Your task to perform on an android device: toggle improve location accuracy Image 0: 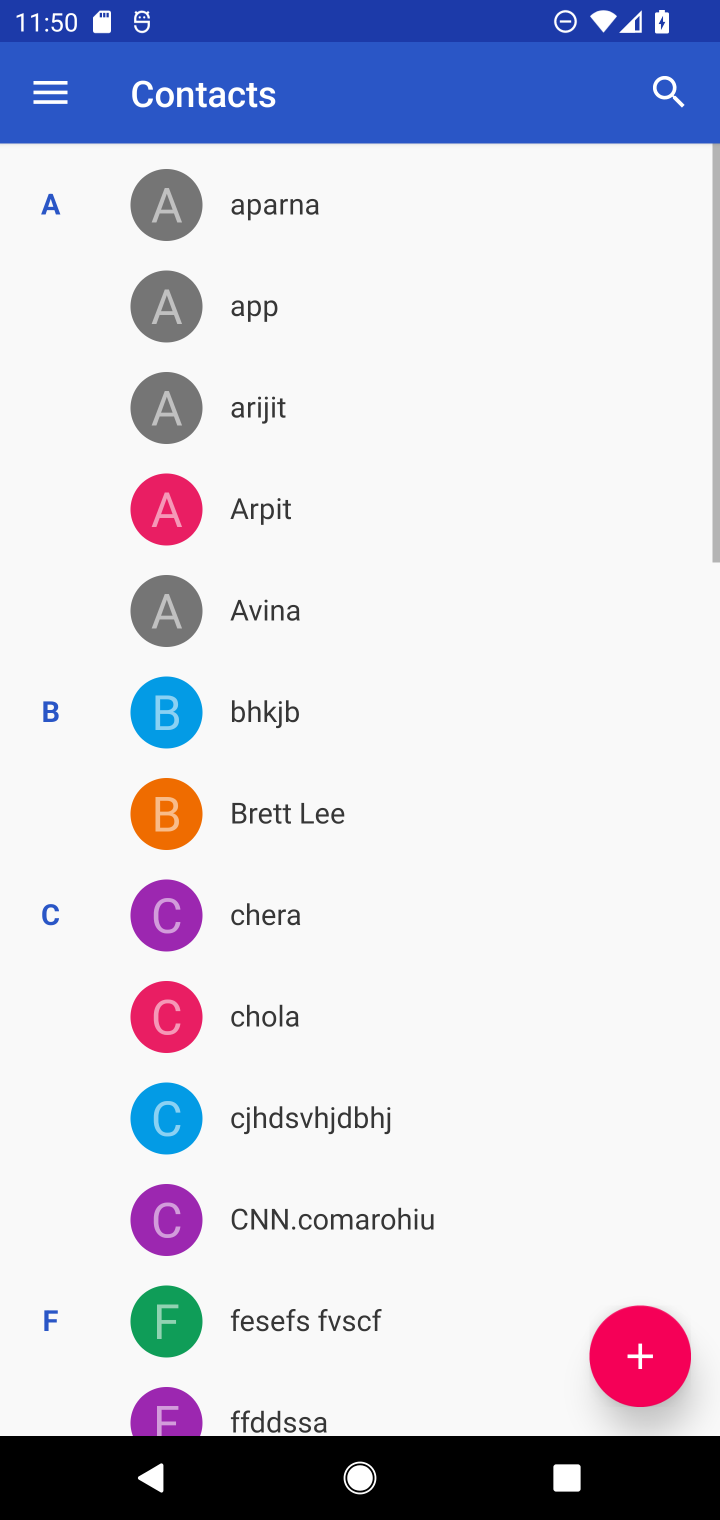
Step 0: press home button
Your task to perform on an android device: toggle improve location accuracy Image 1: 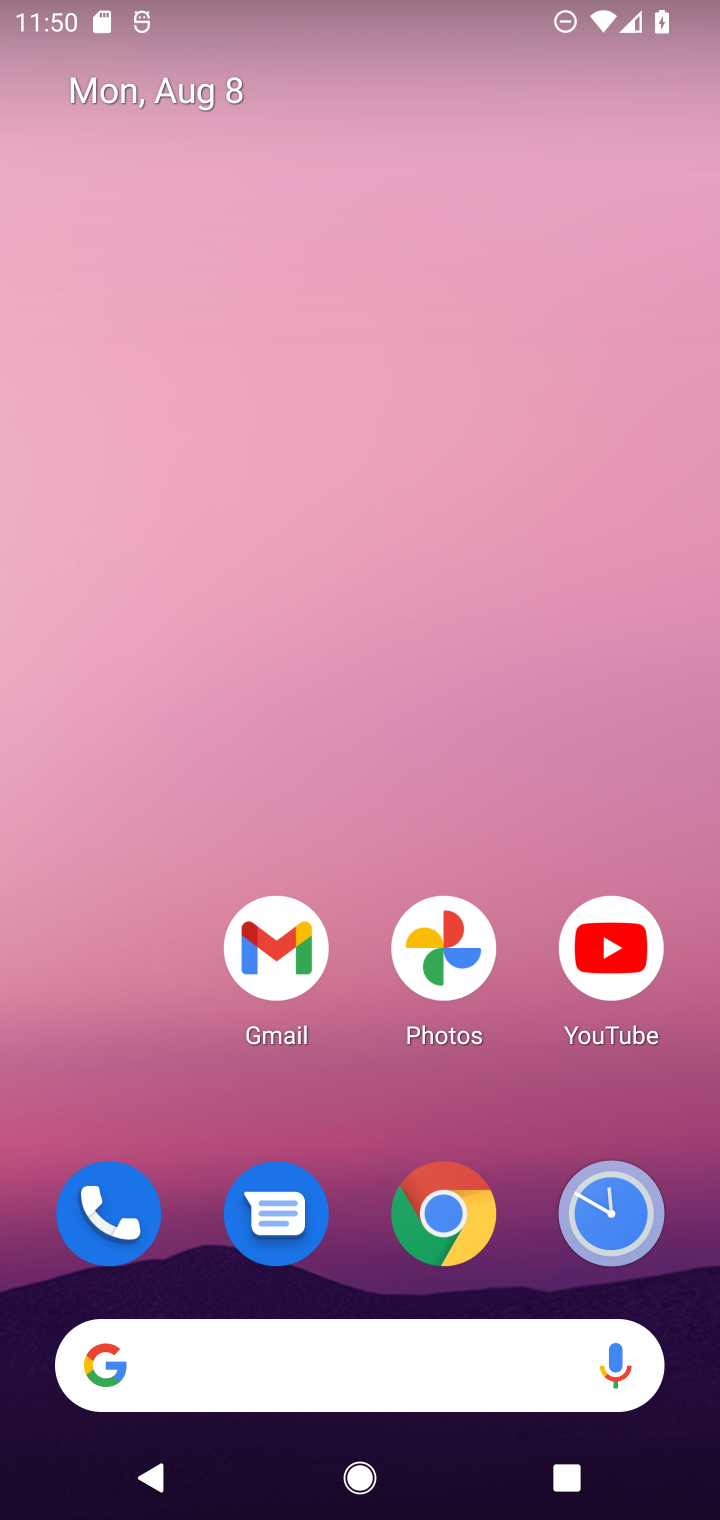
Step 1: drag from (355, 1139) to (421, 206)
Your task to perform on an android device: toggle improve location accuracy Image 2: 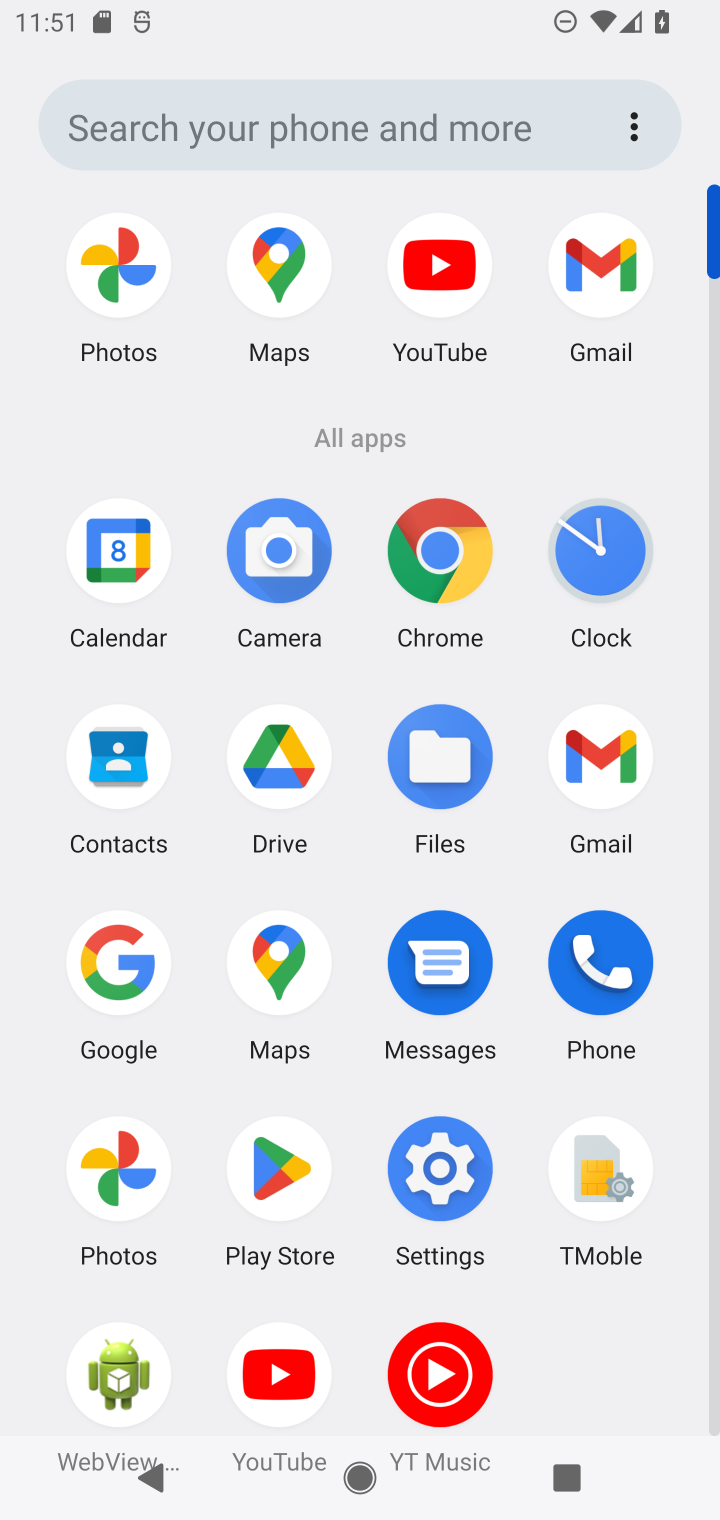
Step 2: click (427, 1151)
Your task to perform on an android device: toggle improve location accuracy Image 3: 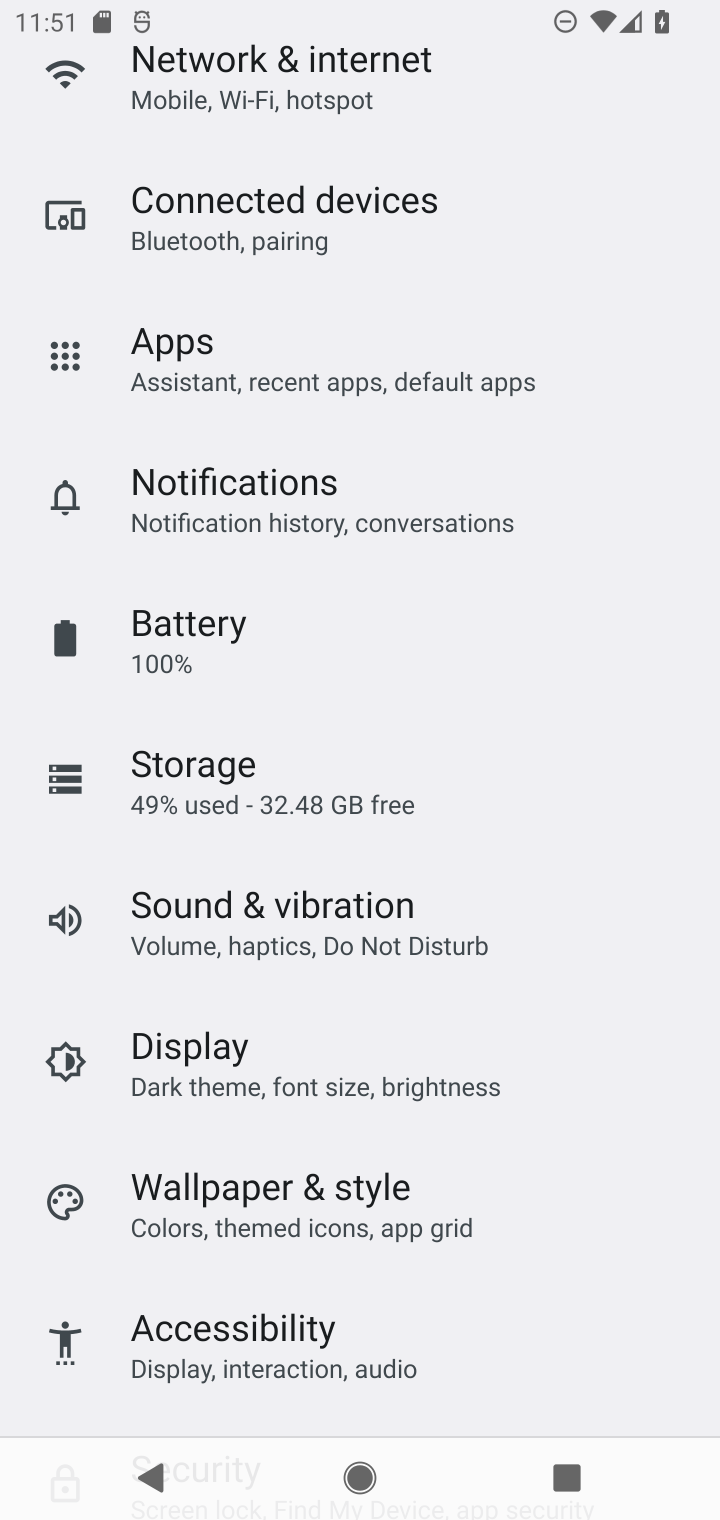
Step 3: drag from (378, 1310) to (453, 518)
Your task to perform on an android device: toggle improve location accuracy Image 4: 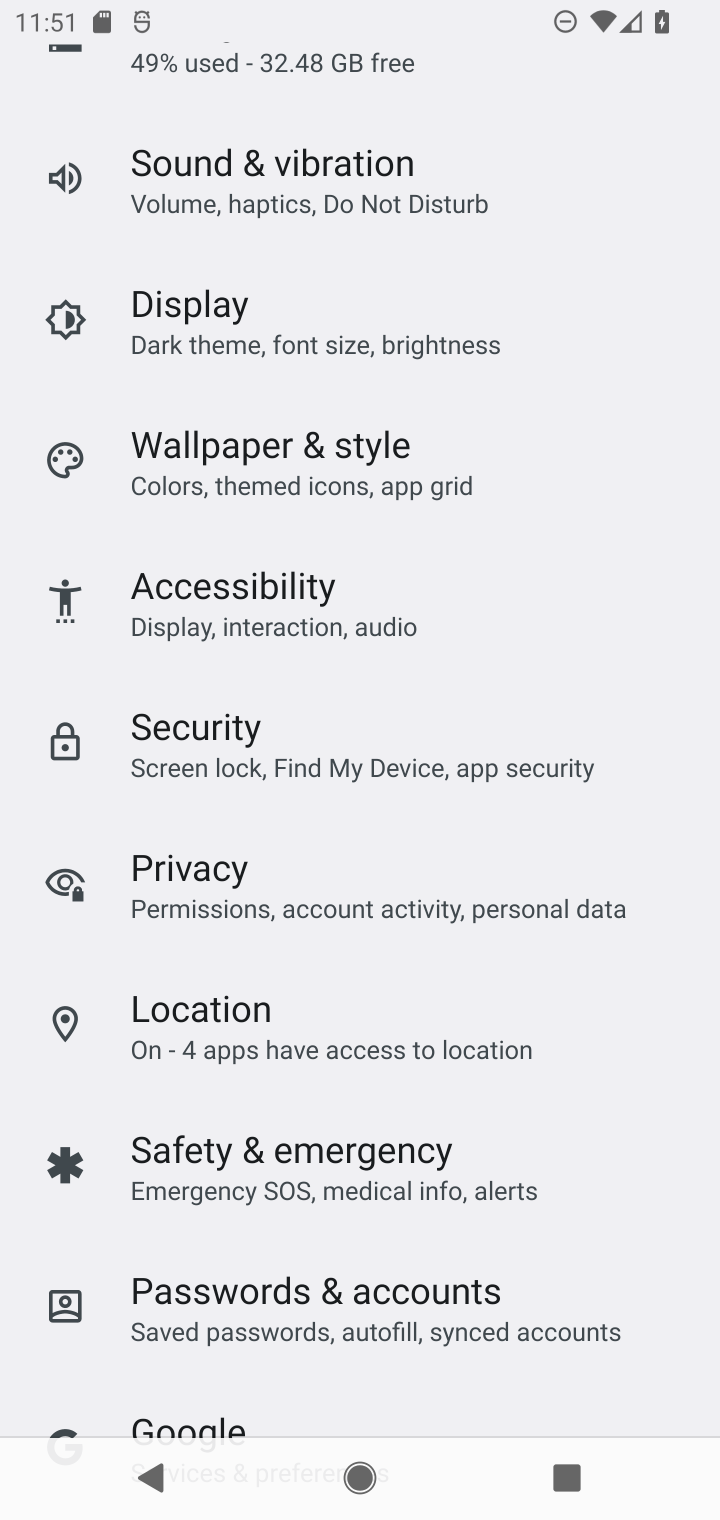
Step 4: click (302, 993)
Your task to perform on an android device: toggle improve location accuracy Image 5: 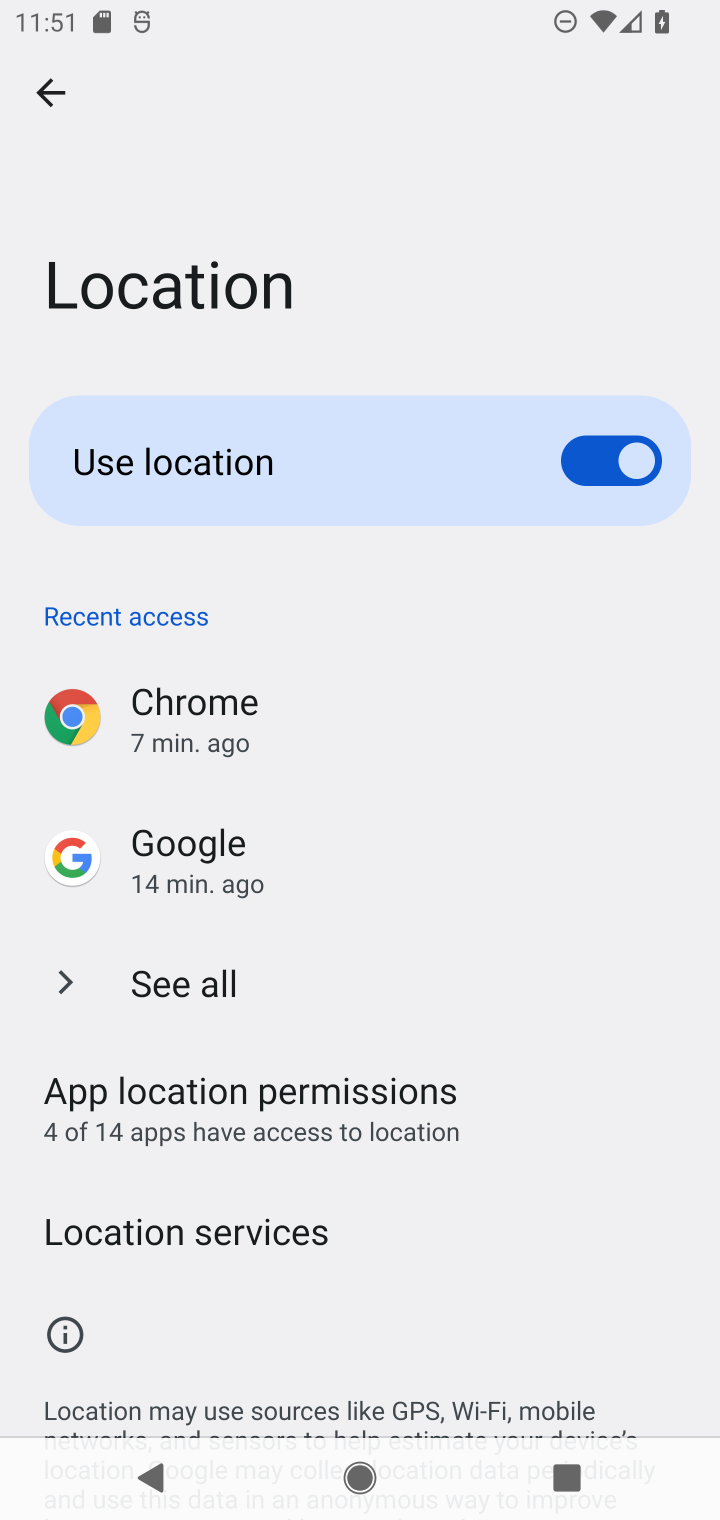
Step 5: click (350, 1233)
Your task to perform on an android device: toggle improve location accuracy Image 6: 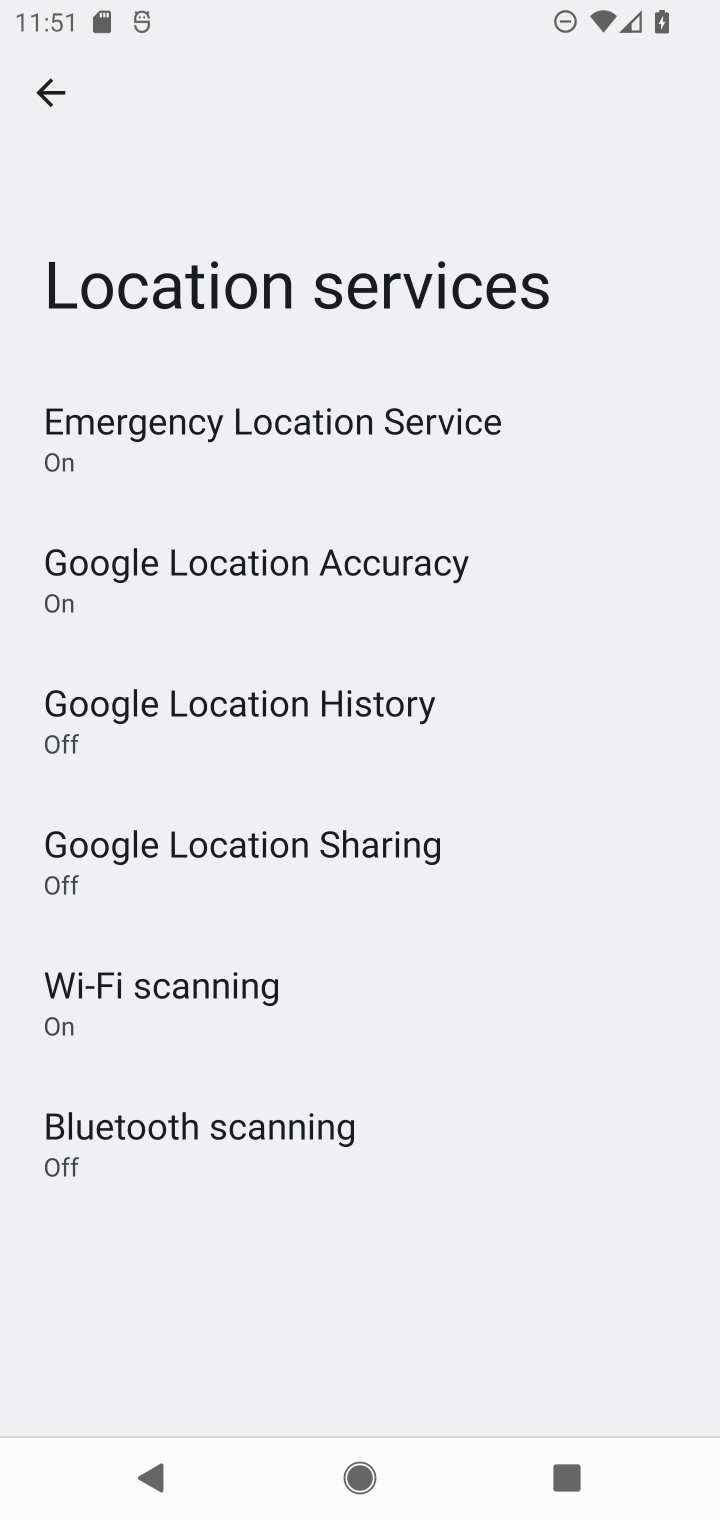
Step 6: click (496, 575)
Your task to perform on an android device: toggle improve location accuracy Image 7: 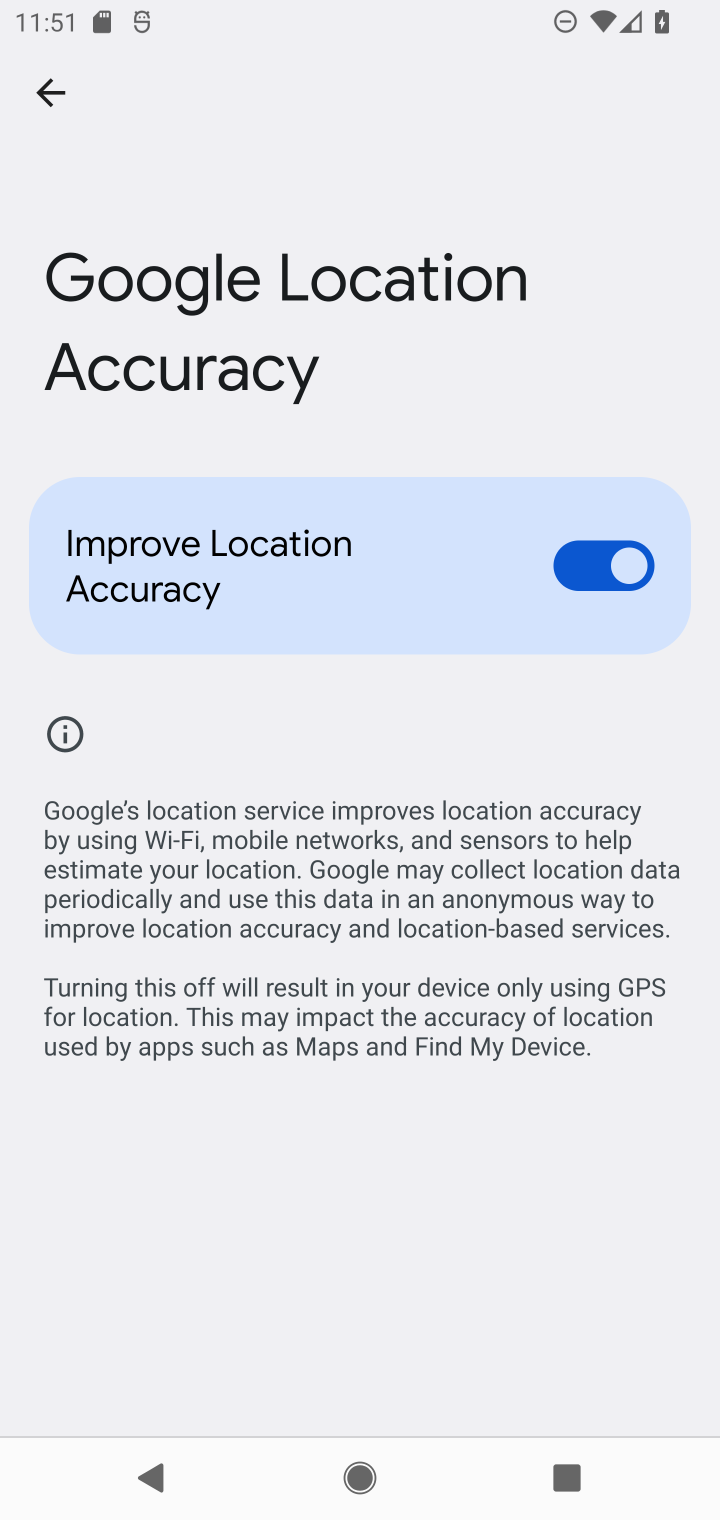
Step 7: click (584, 551)
Your task to perform on an android device: toggle improve location accuracy Image 8: 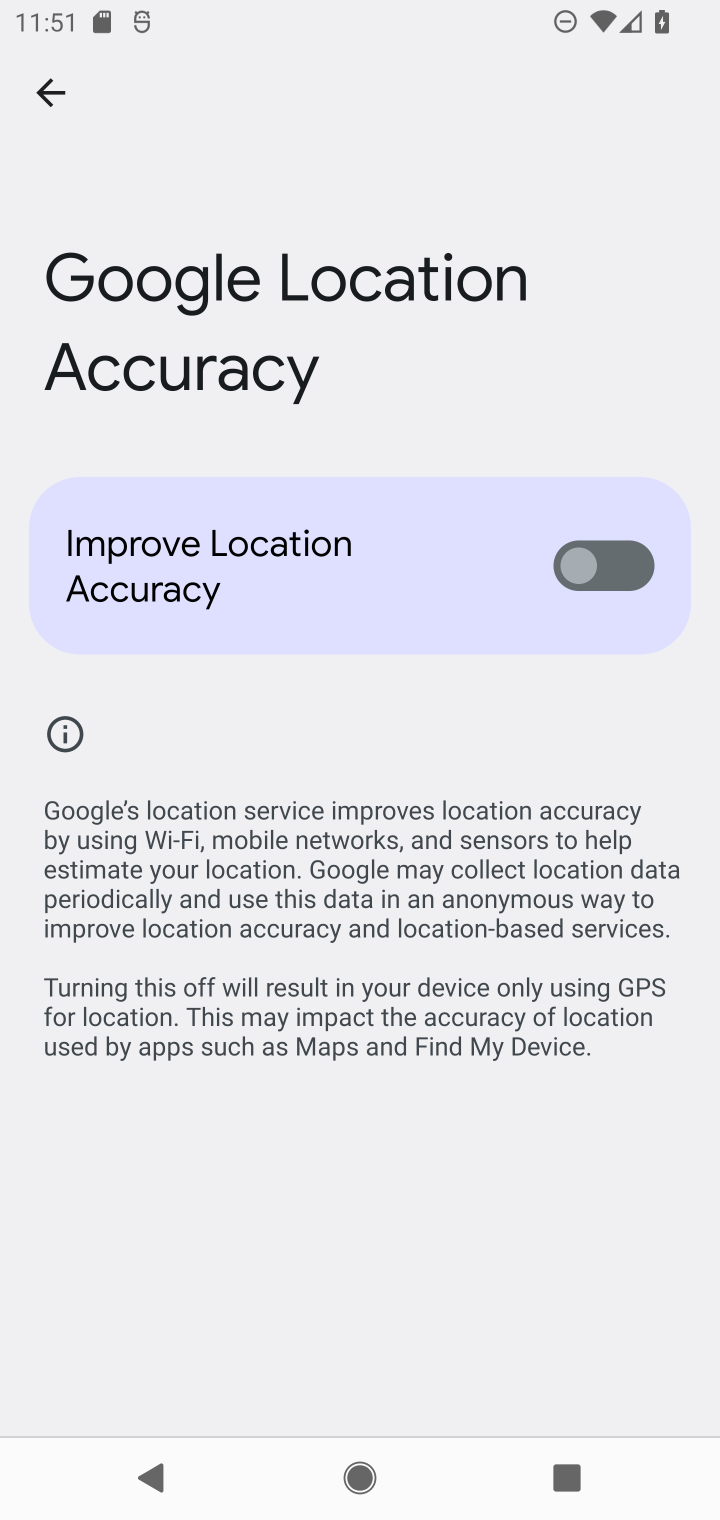
Step 8: task complete